Your task to perform on an android device: Check the news Image 0: 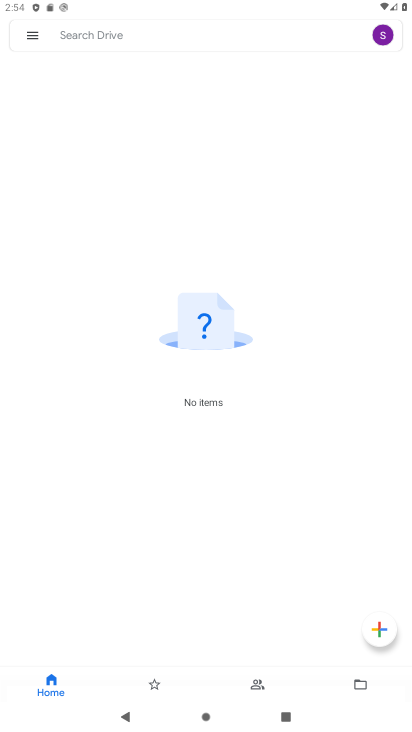
Step 0: press home button
Your task to perform on an android device: Check the news Image 1: 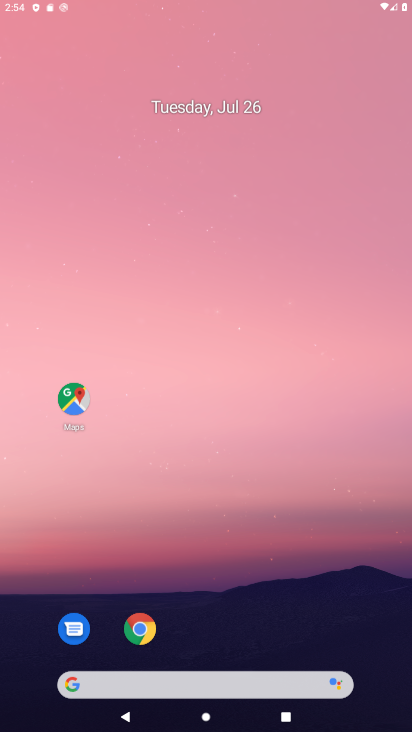
Step 1: press home button
Your task to perform on an android device: Check the news Image 2: 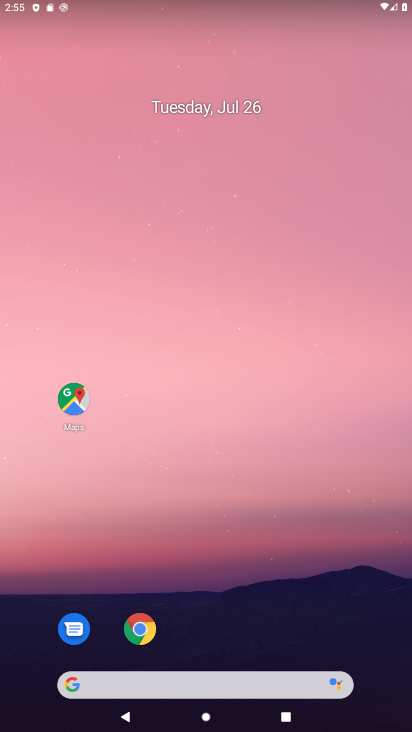
Step 2: drag from (269, 599) to (263, 101)
Your task to perform on an android device: Check the news Image 3: 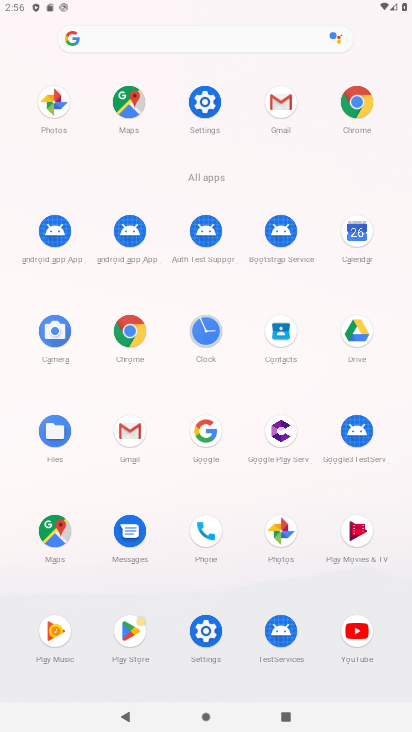
Step 3: click (145, 355)
Your task to perform on an android device: Check the news Image 4: 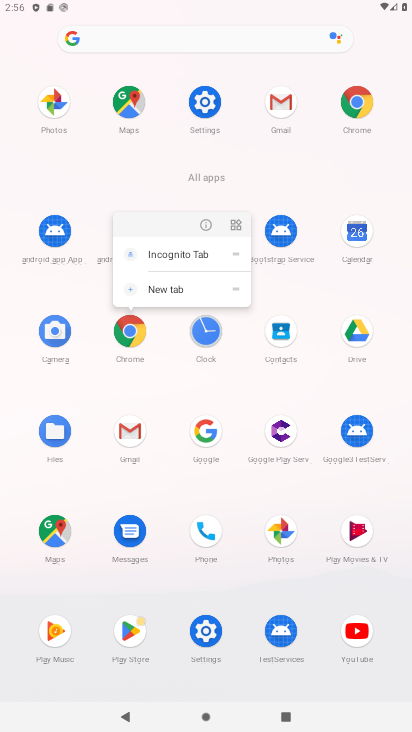
Step 4: click (145, 355)
Your task to perform on an android device: Check the news Image 5: 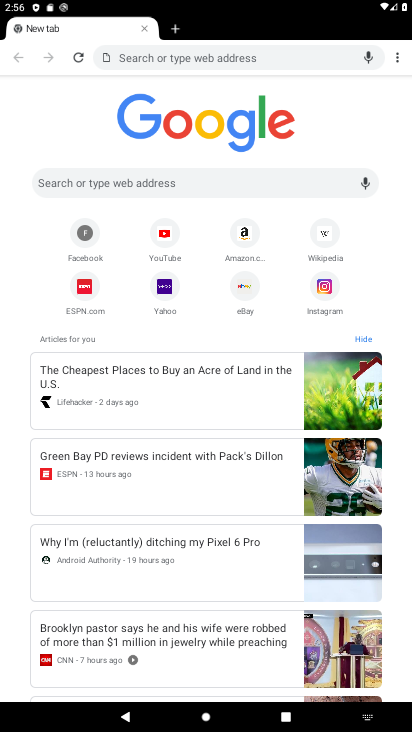
Step 5: click (212, 171)
Your task to perform on an android device: Check the news Image 6: 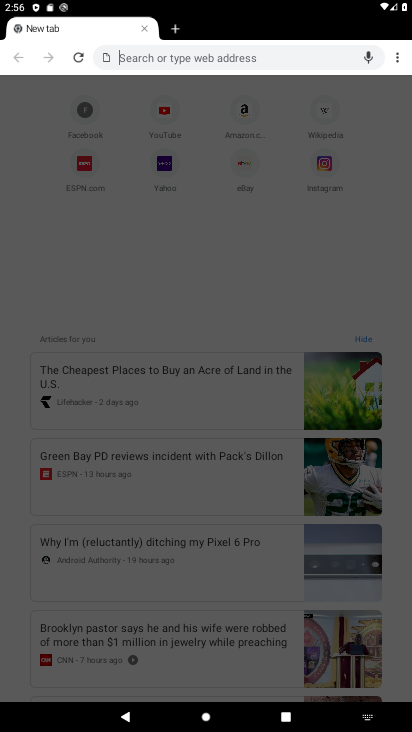
Step 6: type "news"
Your task to perform on an android device: Check the news Image 7: 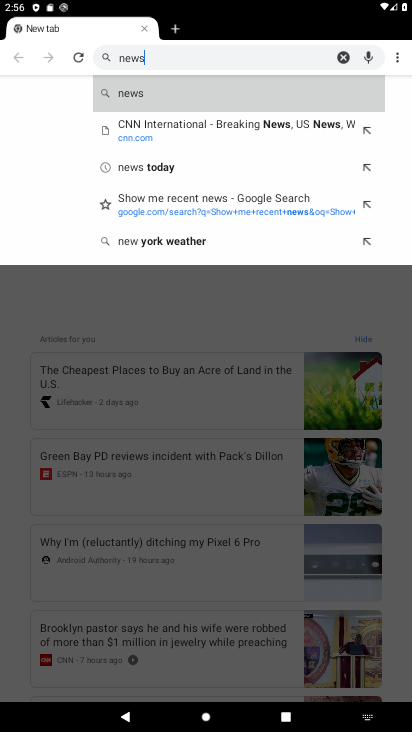
Step 7: type ""
Your task to perform on an android device: Check the news Image 8: 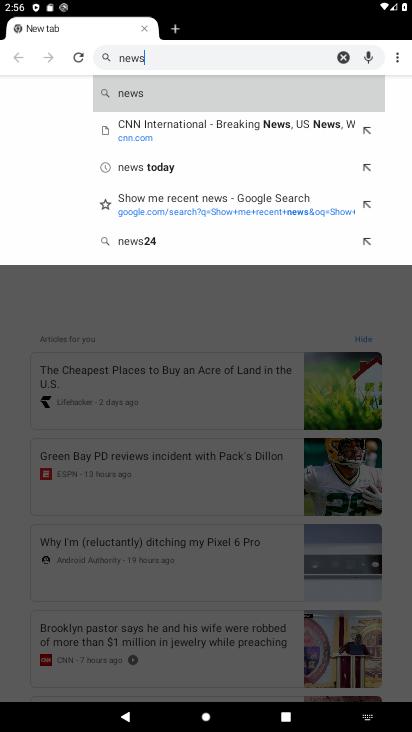
Step 8: click (177, 102)
Your task to perform on an android device: Check the news Image 9: 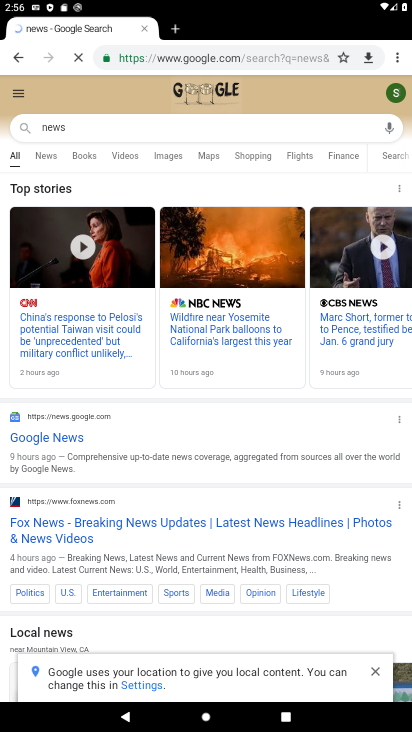
Step 9: task complete